Your task to perform on an android device: turn off priority inbox in the gmail app Image 0: 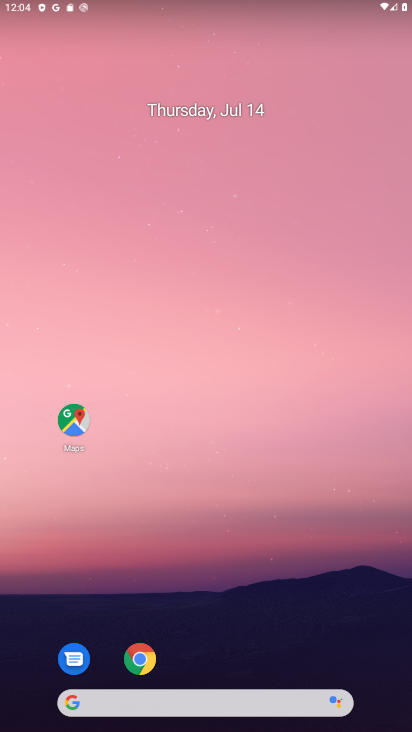
Step 0: drag from (77, 576) to (220, 232)
Your task to perform on an android device: turn off priority inbox in the gmail app Image 1: 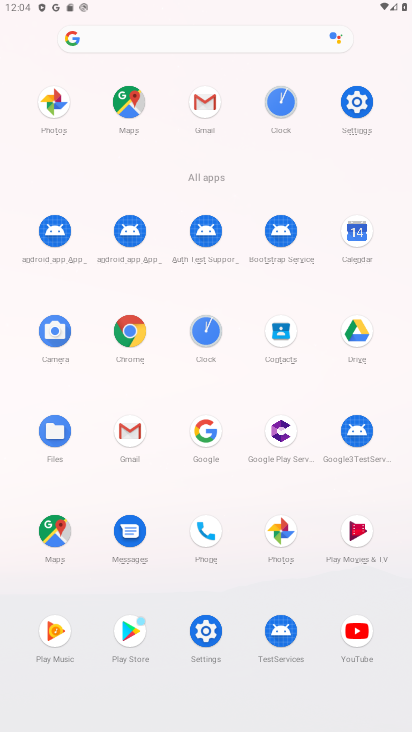
Step 1: click (135, 436)
Your task to perform on an android device: turn off priority inbox in the gmail app Image 2: 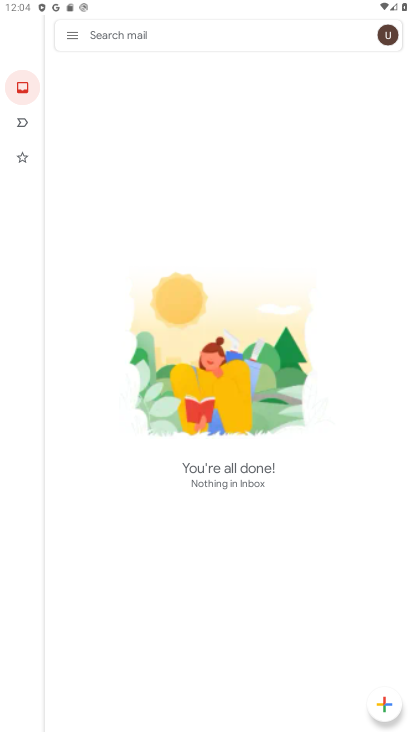
Step 2: click (78, 35)
Your task to perform on an android device: turn off priority inbox in the gmail app Image 3: 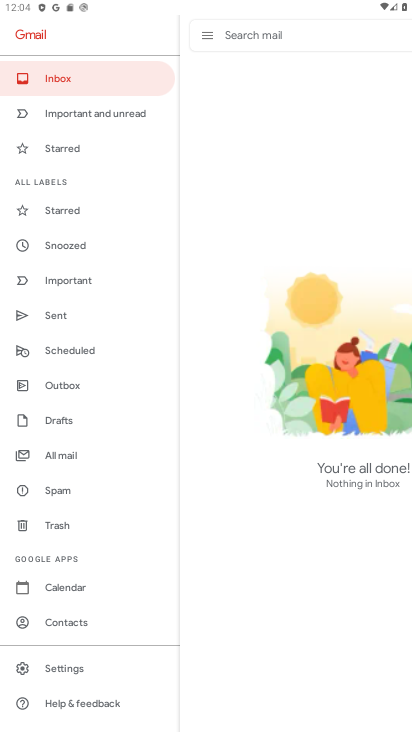
Step 3: click (57, 662)
Your task to perform on an android device: turn off priority inbox in the gmail app Image 4: 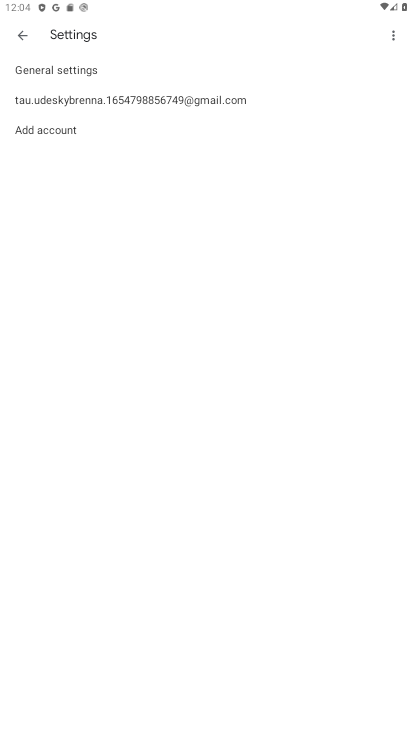
Step 4: click (166, 90)
Your task to perform on an android device: turn off priority inbox in the gmail app Image 5: 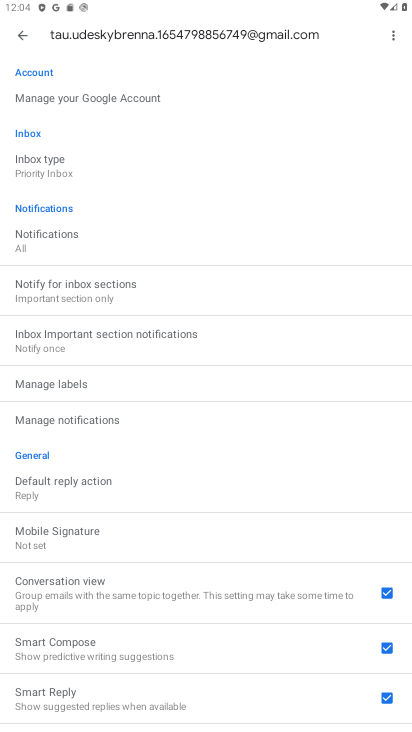
Step 5: click (85, 167)
Your task to perform on an android device: turn off priority inbox in the gmail app Image 6: 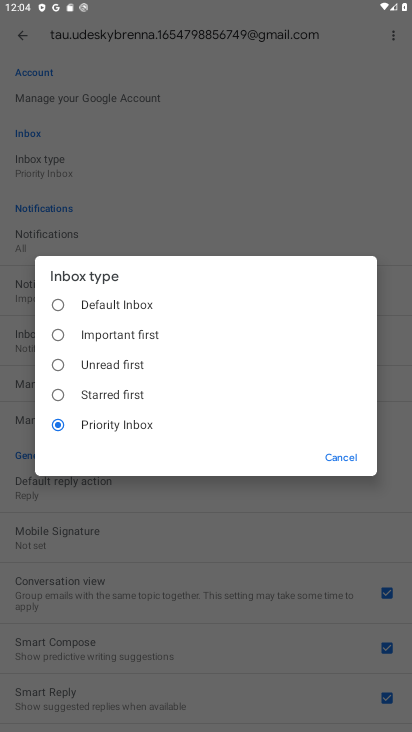
Step 6: click (58, 413)
Your task to perform on an android device: turn off priority inbox in the gmail app Image 7: 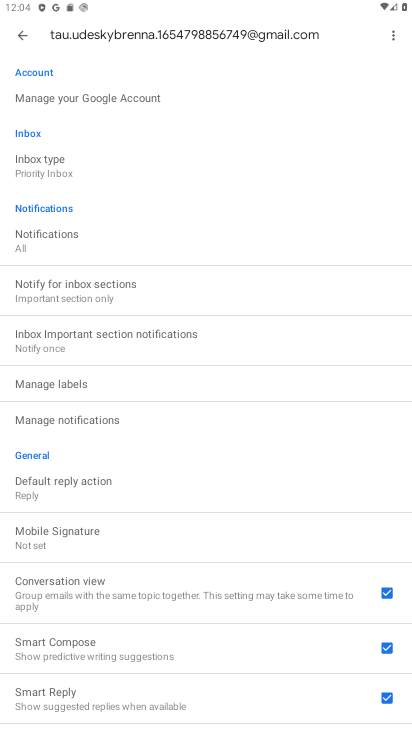
Step 7: click (56, 410)
Your task to perform on an android device: turn off priority inbox in the gmail app Image 8: 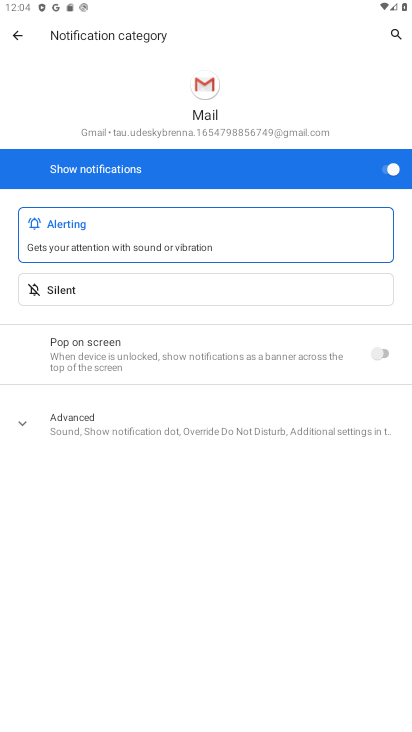
Step 8: click (75, 159)
Your task to perform on an android device: turn off priority inbox in the gmail app Image 9: 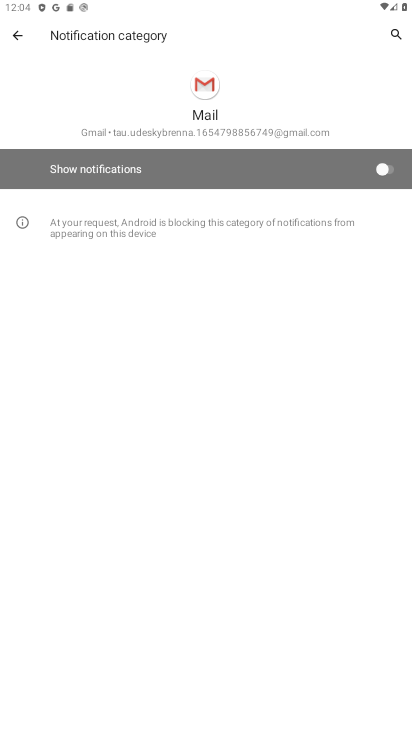
Step 9: click (24, 33)
Your task to perform on an android device: turn off priority inbox in the gmail app Image 10: 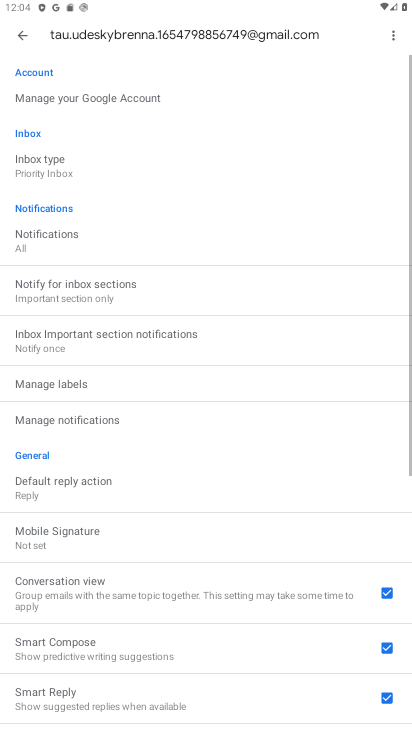
Step 10: click (67, 170)
Your task to perform on an android device: turn off priority inbox in the gmail app Image 11: 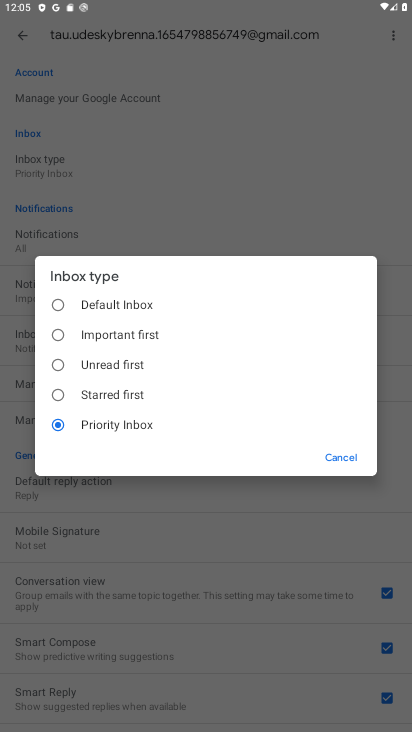
Step 11: click (58, 392)
Your task to perform on an android device: turn off priority inbox in the gmail app Image 12: 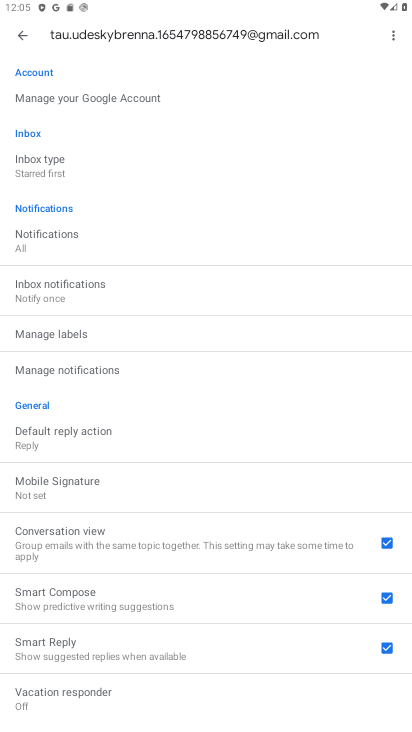
Step 12: task complete